Your task to perform on an android device: open wifi settings Image 0: 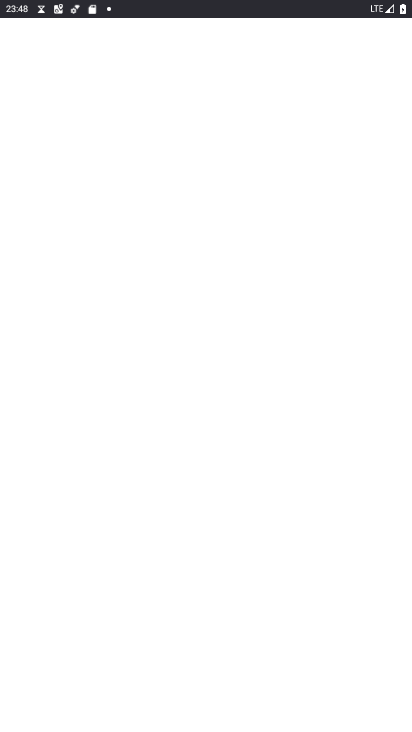
Step 0: drag from (255, 725) to (292, 87)
Your task to perform on an android device: open wifi settings Image 1: 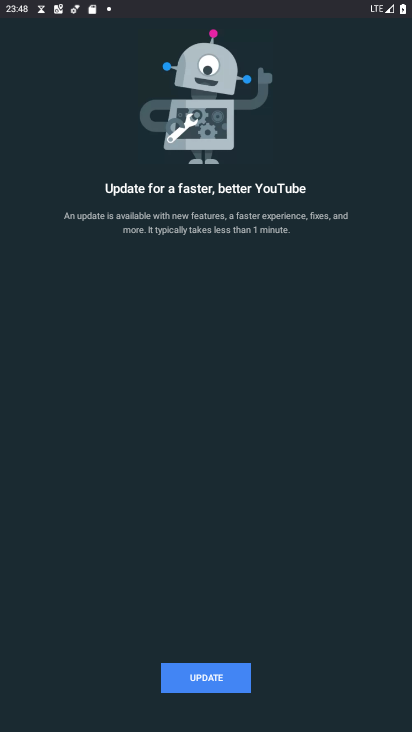
Step 1: press home button
Your task to perform on an android device: open wifi settings Image 2: 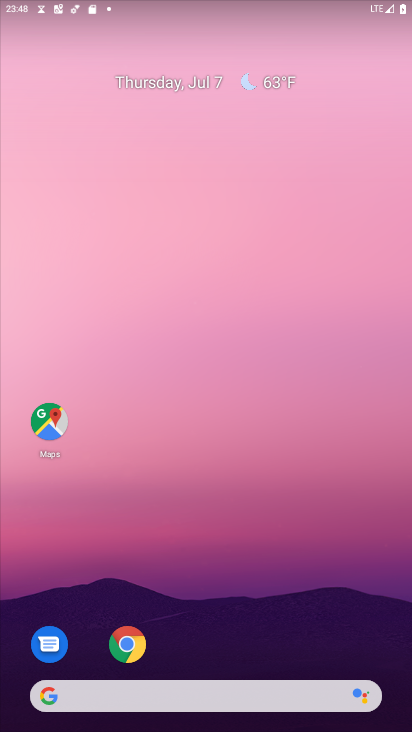
Step 2: drag from (232, 723) to (231, 146)
Your task to perform on an android device: open wifi settings Image 3: 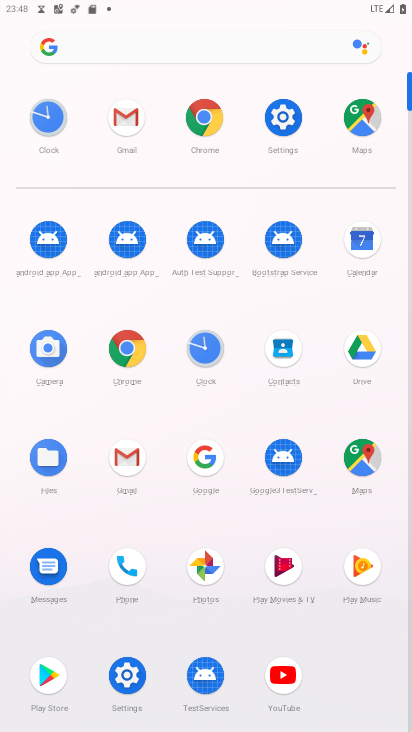
Step 3: click (281, 118)
Your task to perform on an android device: open wifi settings Image 4: 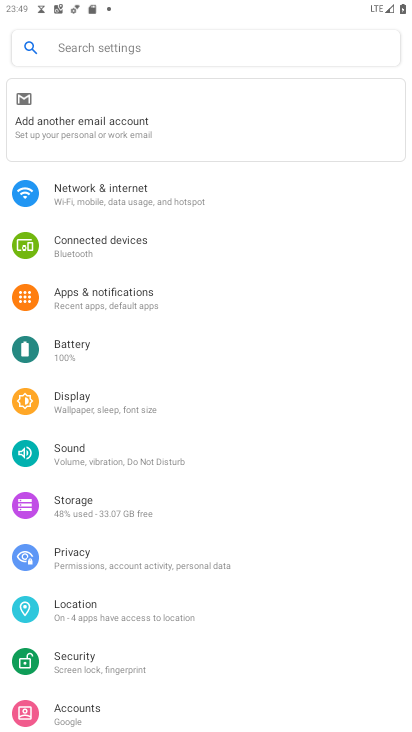
Step 4: click (107, 188)
Your task to perform on an android device: open wifi settings Image 5: 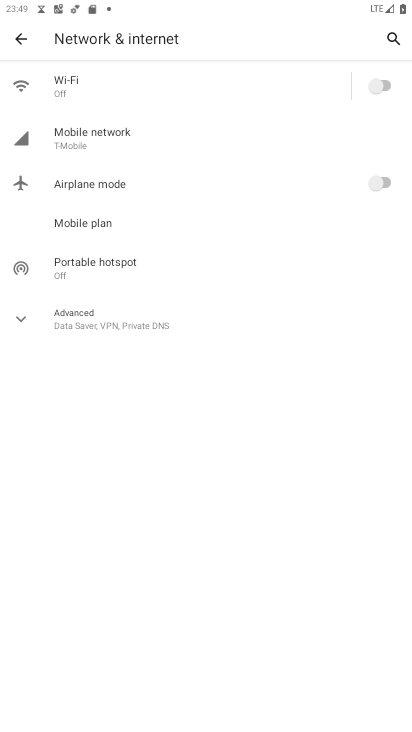
Step 5: click (75, 86)
Your task to perform on an android device: open wifi settings Image 6: 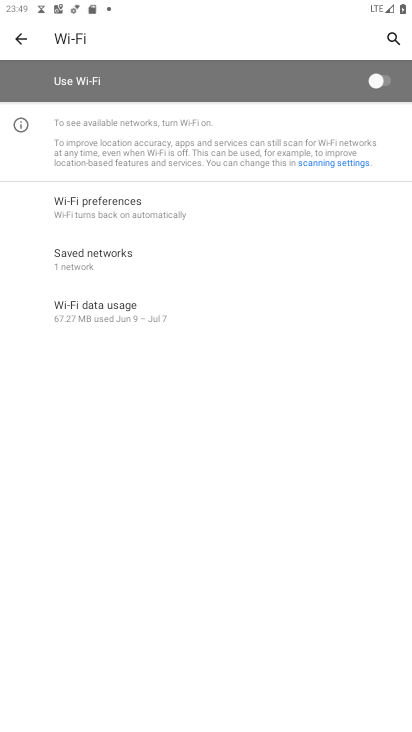
Step 6: task complete